Your task to perform on an android device: turn on javascript in the chrome app Image 0: 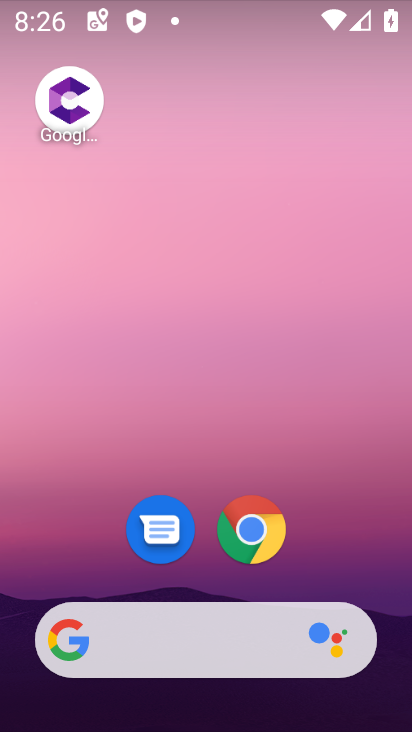
Step 0: drag from (343, 560) to (393, 97)
Your task to perform on an android device: turn on javascript in the chrome app Image 1: 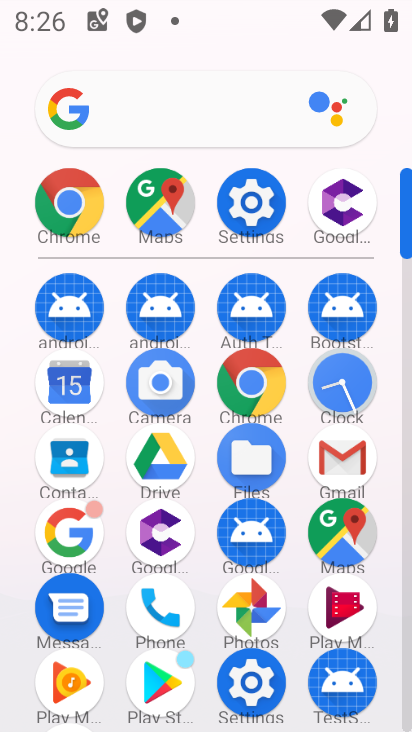
Step 1: click (269, 382)
Your task to perform on an android device: turn on javascript in the chrome app Image 2: 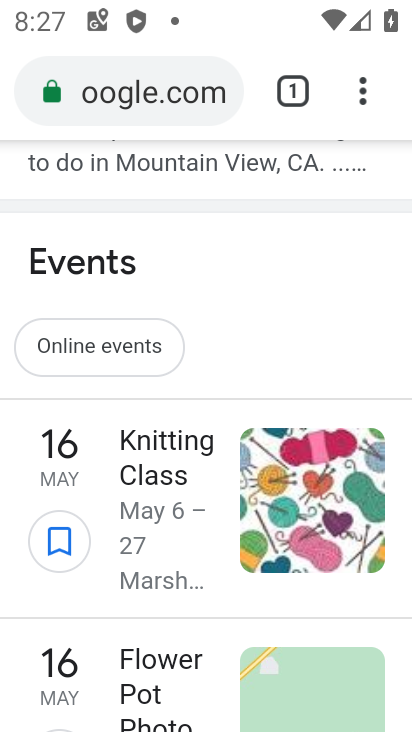
Step 2: drag from (355, 114) to (108, 567)
Your task to perform on an android device: turn on javascript in the chrome app Image 3: 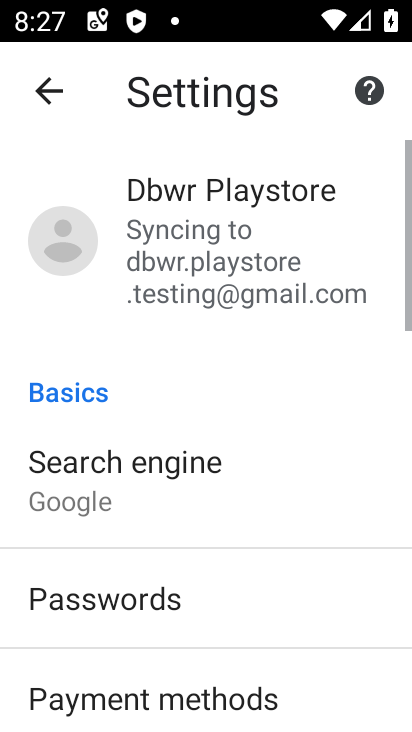
Step 3: drag from (227, 611) to (265, 265)
Your task to perform on an android device: turn on javascript in the chrome app Image 4: 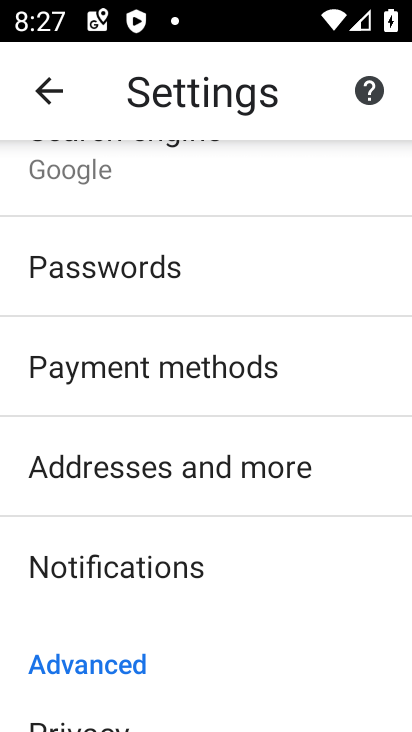
Step 4: drag from (307, 622) to (339, 277)
Your task to perform on an android device: turn on javascript in the chrome app Image 5: 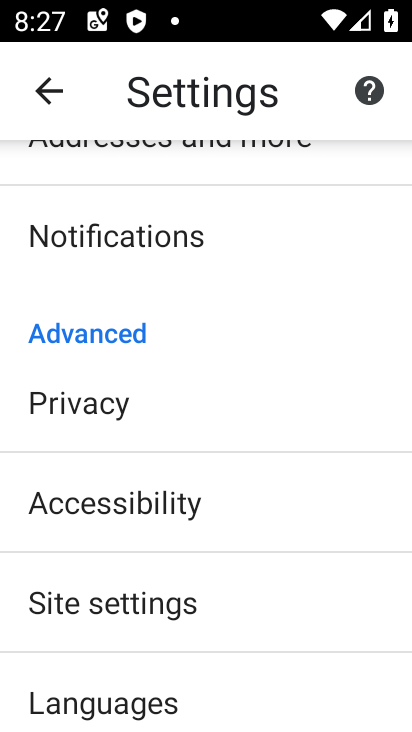
Step 5: click (142, 628)
Your task to perform on an android device: turn on javascript in the chrome app Image 6: 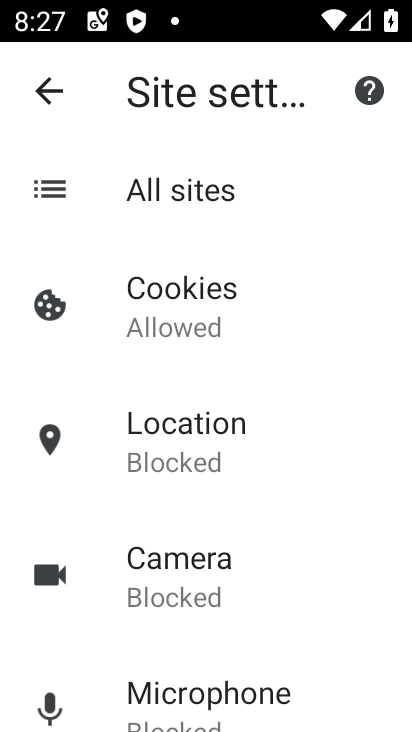
Step 6: drag from (328, 633) to (366, 271)
Your task to perform on an android device: turn on javascript in the chrome app Image 7: 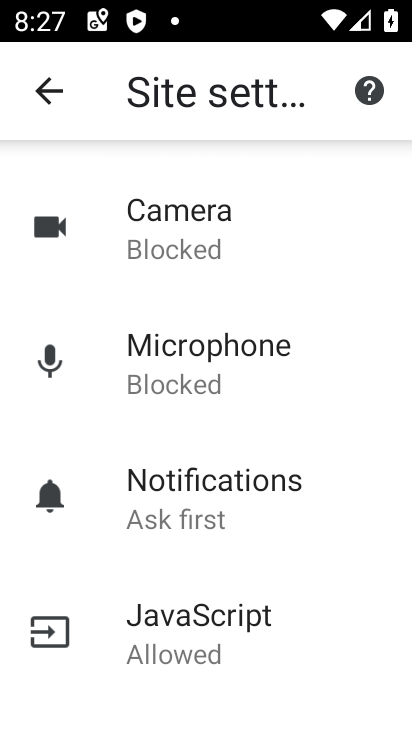
Step 7: click (229, 626)
Your task to perform on an android device: turn on javascript in the chrome app Image 8: 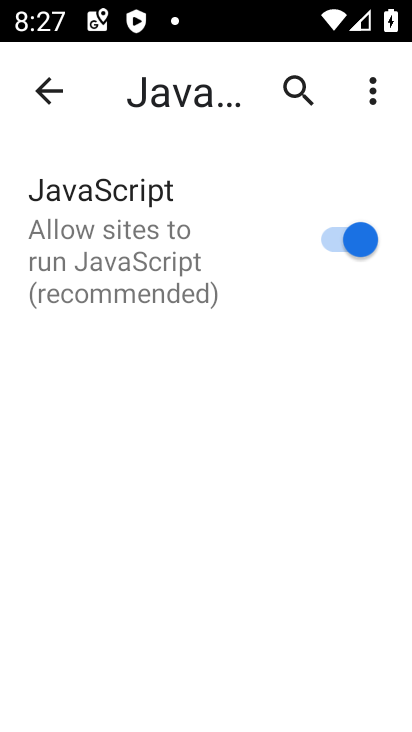
Step 8: task complete